Your task to perform on an android device: change the clock display to analog Image 0: 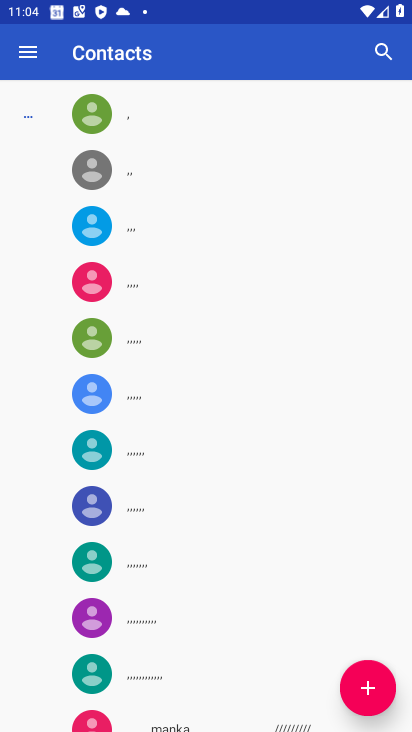
Step 0: press home button
Your task to perform on an android device: change the clock display to analog Image 1: 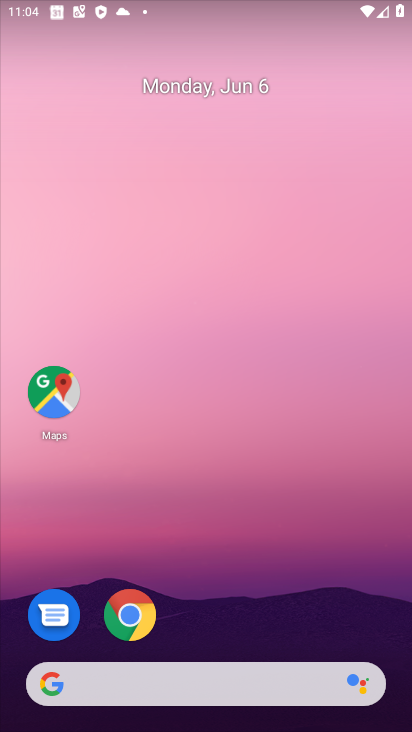
Step 1: drag from (314, 617) to (237, 71)
Your task to perform on an android device: change the clock display to analog Image 2: 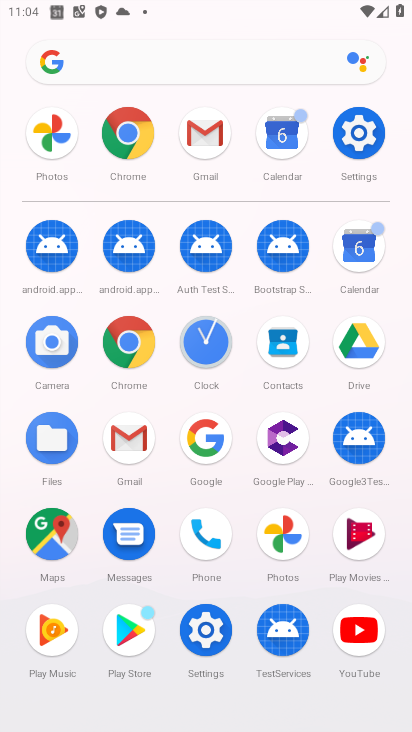
Step 2: click (207, 334)
Your task to perform on an android device: change the clock display to analog Image 3: 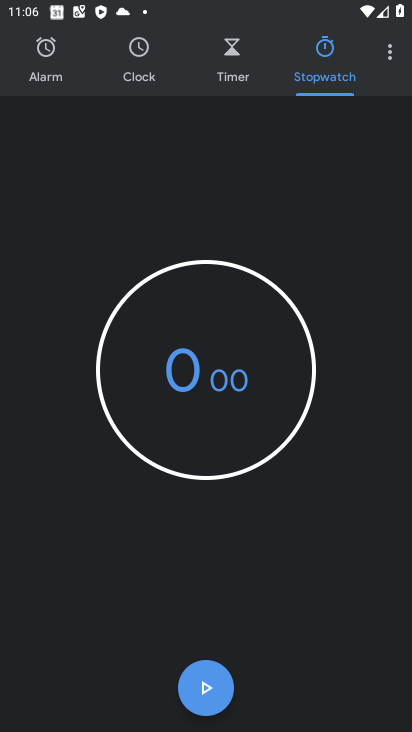
Step 3: press home button
Your task to perform on an android device: change the clock display to analog Image 4: 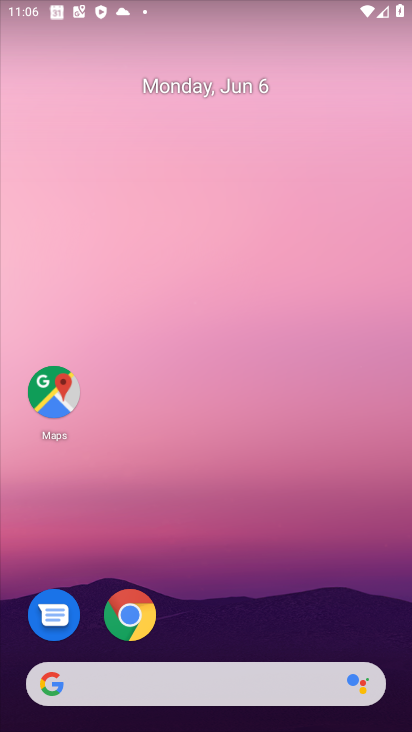
Step 4: drag from (297, 596) to (276, 235)
Your task to perform on an android device: change the clock display to analog Image 5: 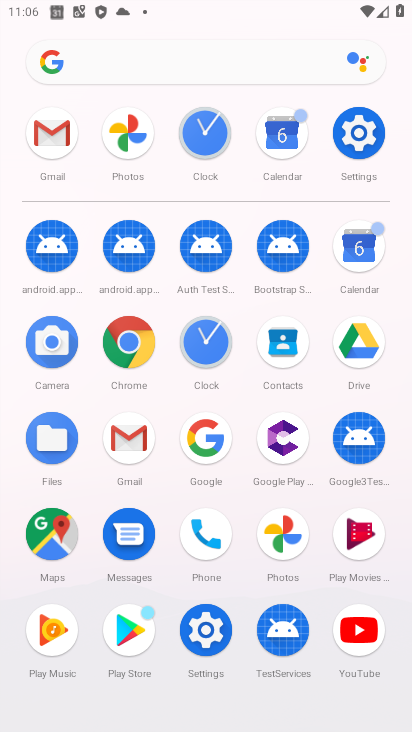
Step 5: click (271, 330)
Your task to perform on an android device: change the clock display to analog Image 6: 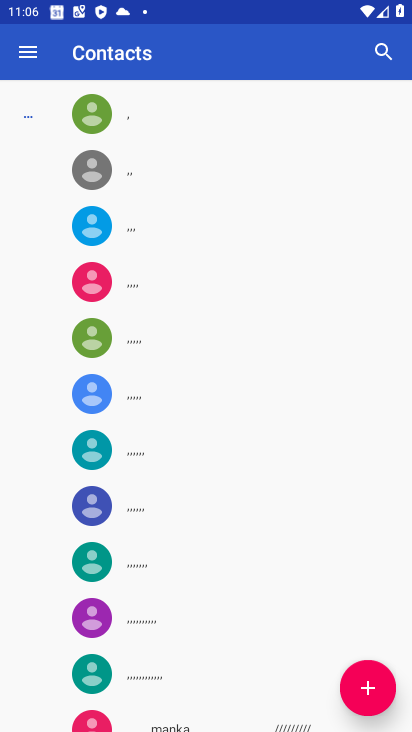
Step 6: task complete